Your task to perform on an android device: Do I have any events this weekend? Image 0: 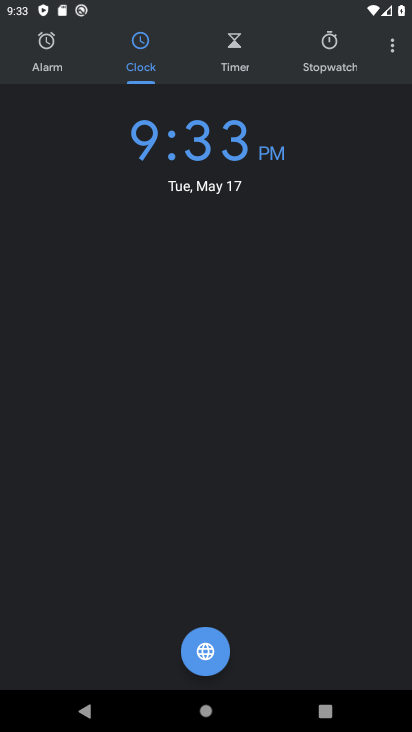
Step 0: press home button
Your task to perform on an android device: Do I have any events this weekend? Image 1: 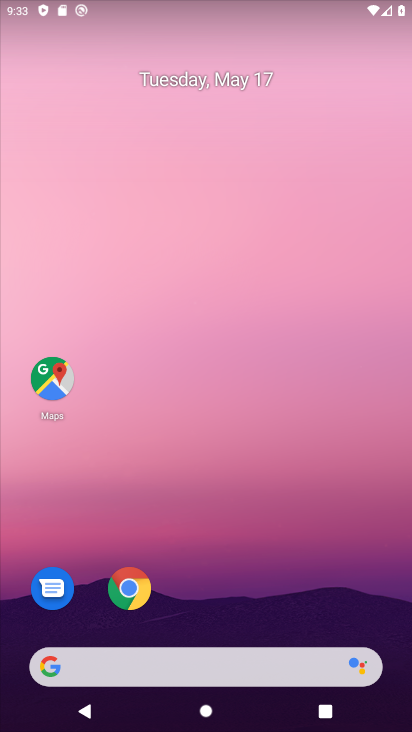
Step 1: drag from (225, 725) to (265, 151)
Your task to perform on an android device: Do I have any events this weekend? Image 2: 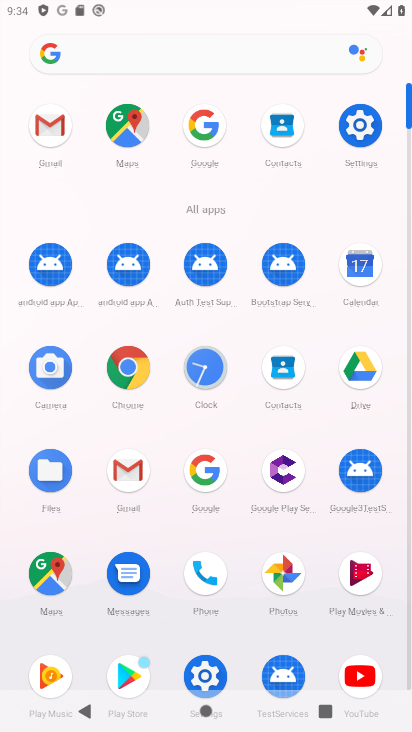
Step 2: click (362, 274)
Your task to perform on an android device: Do I have any events this weekend? Image 3: 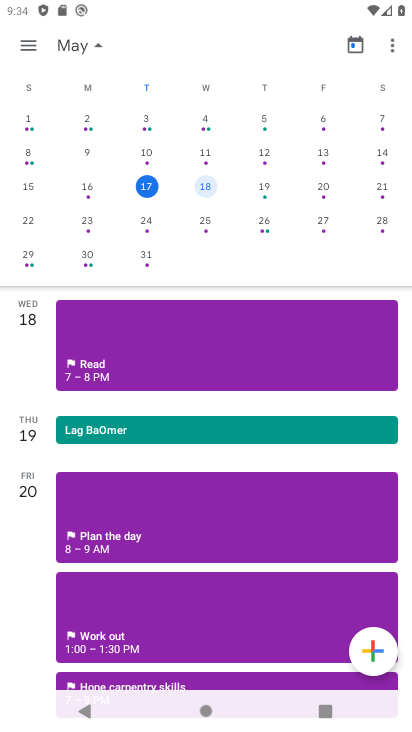
Step 3: click (386, 183)
Your task to perform on an android device: Do I have any events this weekend? Image 4: 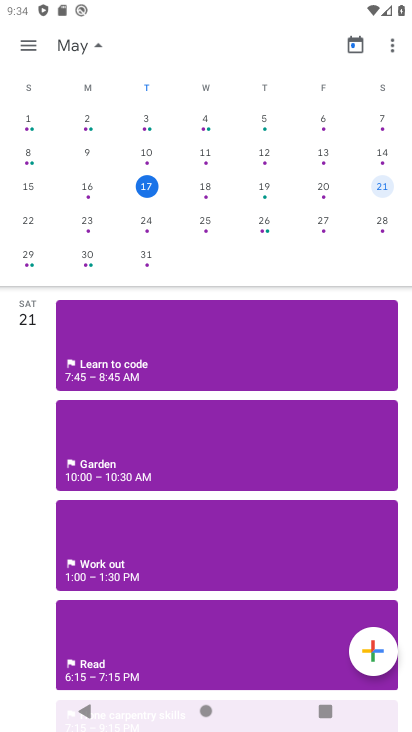
Step 4: click (386, 183)
Your task to perform on an android device: Do I have any events this weekend? Image 5: 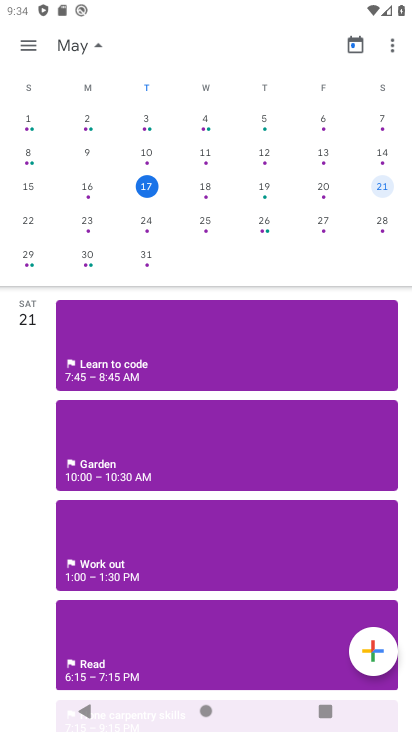
Step 5: click (99, 44)
Your task to perform on an android device: Do I have any events this weekend? Image 6: 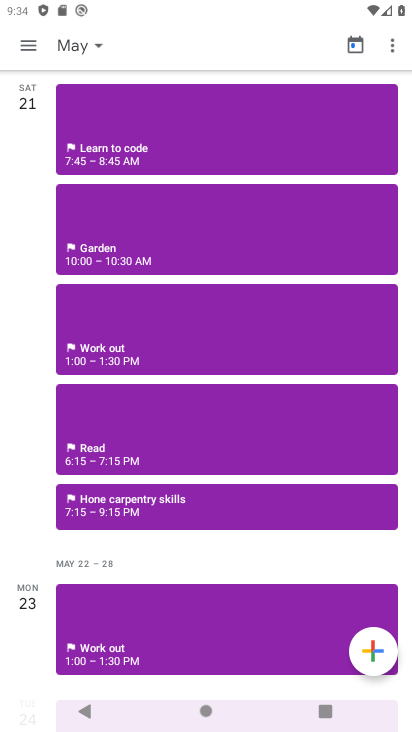
Step 6: task complete